Your task to perform on an android device: Open privacy settings Image 0: 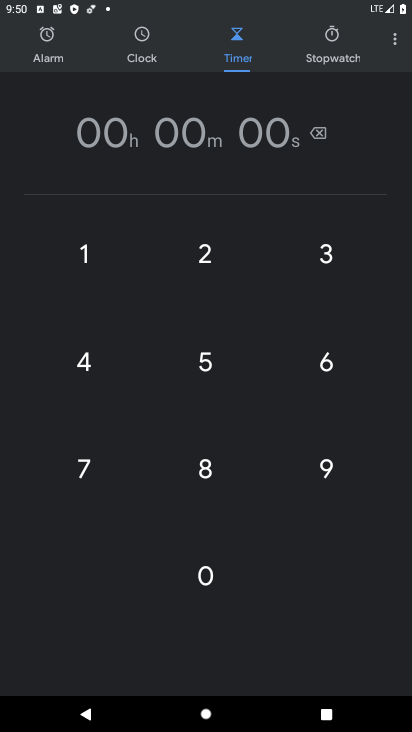
Step 0: press home button
Your task to perform on an android device: Open privacy settings Image 1: 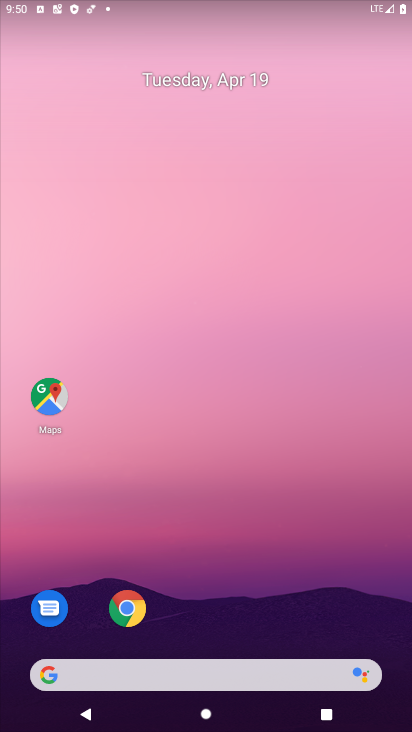
Step 1: drag from (398, 642) to (318, 123)
Your task to perform on an android device: Open privacy settings Image 2: 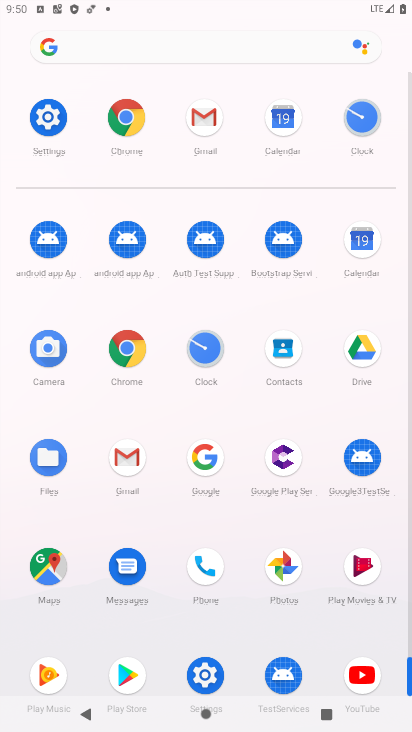
Step 2: click (200, 671)
Your task to perform on an android device: Open privacy settings Image 3: 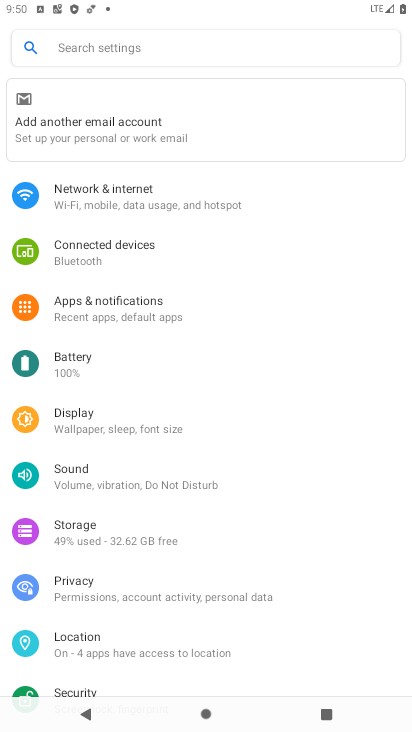
Step 3: click (53, 578)
Your task to perform on an android device: Open privacy settings Image 4: 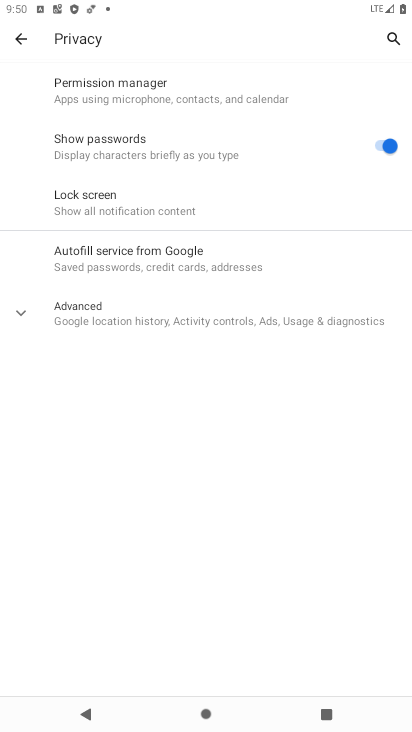
Step 4: click (17, 312)
Your task to perform on an android device: Open privacy settings Image 5: 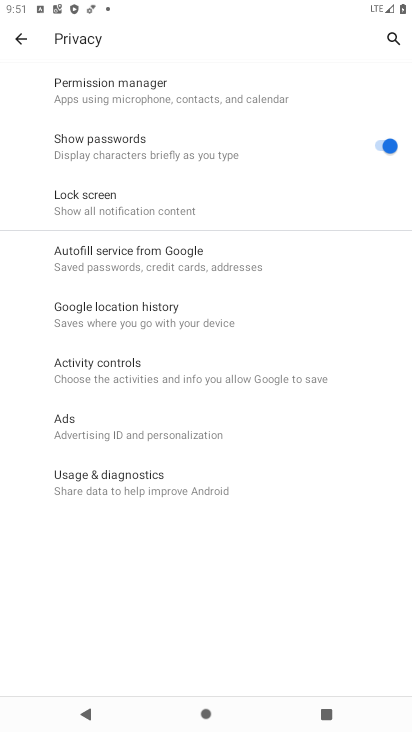
Step 5: task complete